Your task to perform on an android device: Show me popular games on the Play Store Image 0: 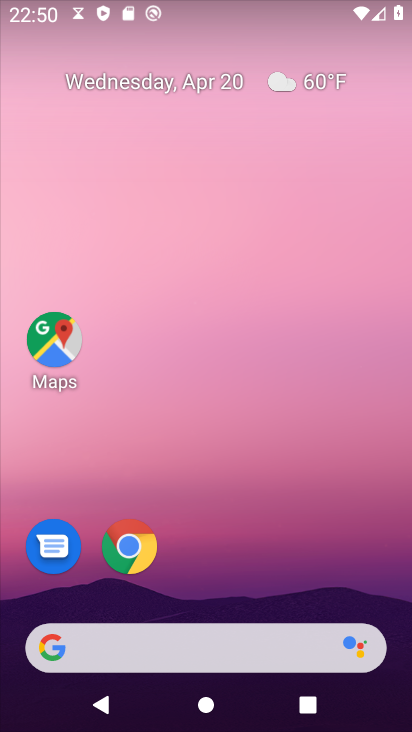
Step 0: drag from (230, 474) to (223, 33)
Your task to perform on an android device: Show me popular games on the Play Store Image 1: 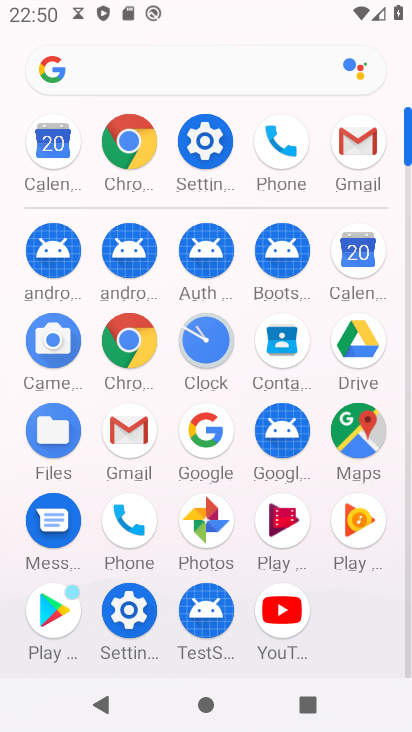
Step 1: click (56, 609)
Your task to perform on an android device: Show me popular games on the Play Store Image 2: 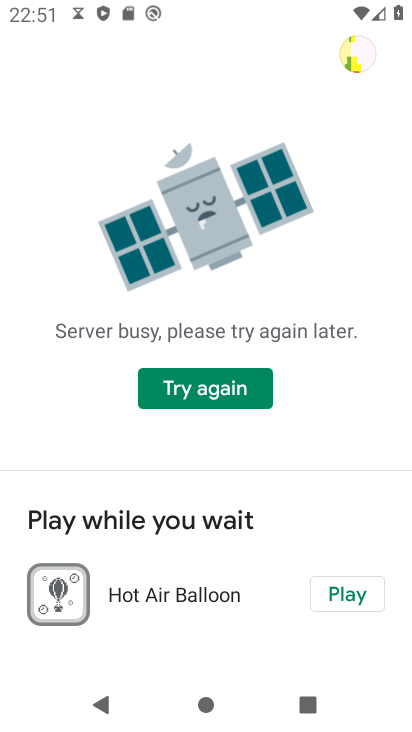
Step 2: click (207, 384)
Your task to perform on an android device: Show me popular games on the Play Store Image 3: 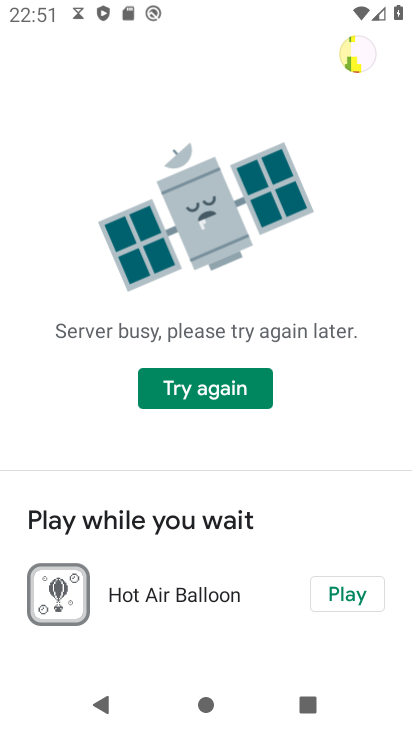
Step 3: task complete